Your task to perform on an android device: turn on the 24-hour format for clock Image 0: 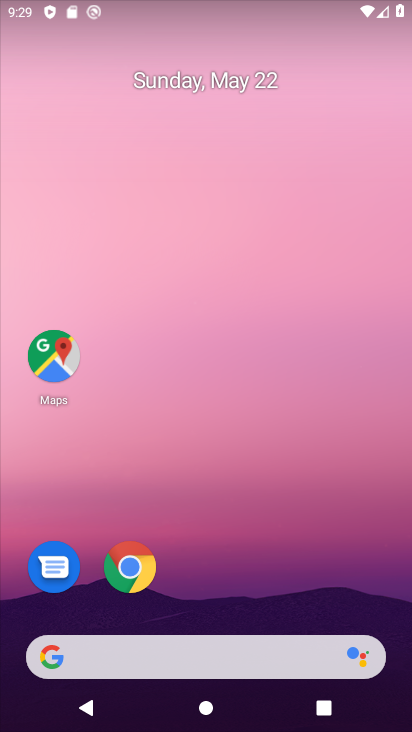
Step 0: drag from (184, 602) to (243, 277)
Your task to perform on an android device: turn on the 24-hour format for clock Image 1: 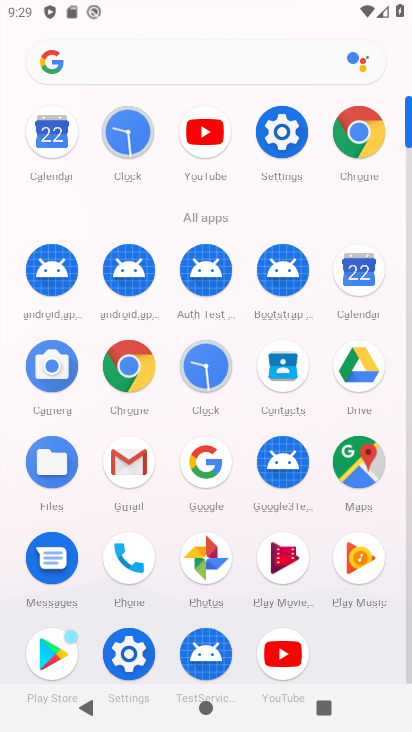
Step 1: click (218, 361)
Your task to perform on an android device: turn on the 24-hour format for clock Image 2: 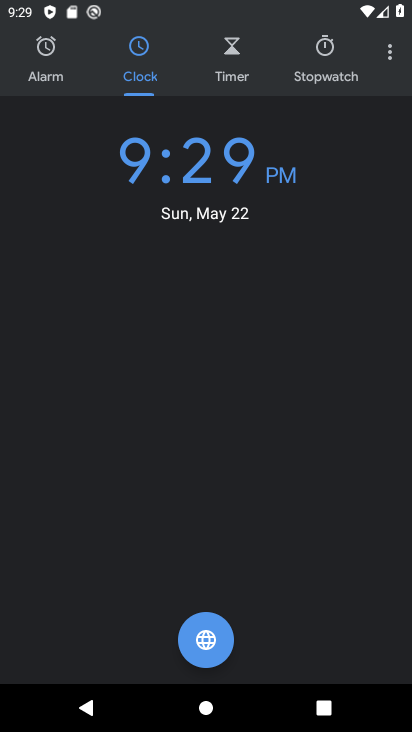
Step 2: click (394, 47)
Your task to perform on an android device: turn on the 24-hour format for clock Image 3: 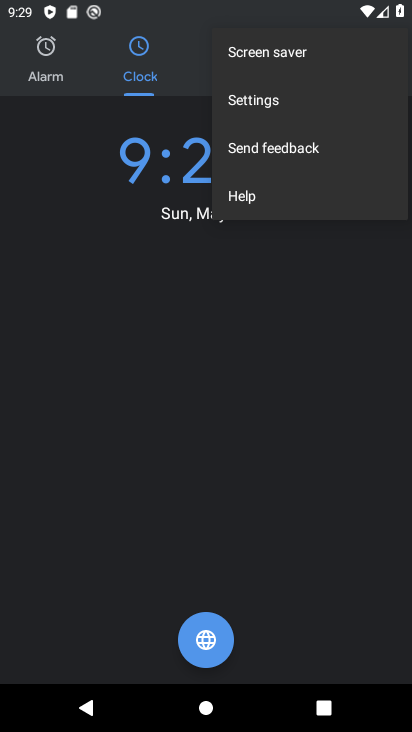
Step 3: click (251, 106)
Your task to perform on an android device: turn on the 24-hour format for clock Image 4: 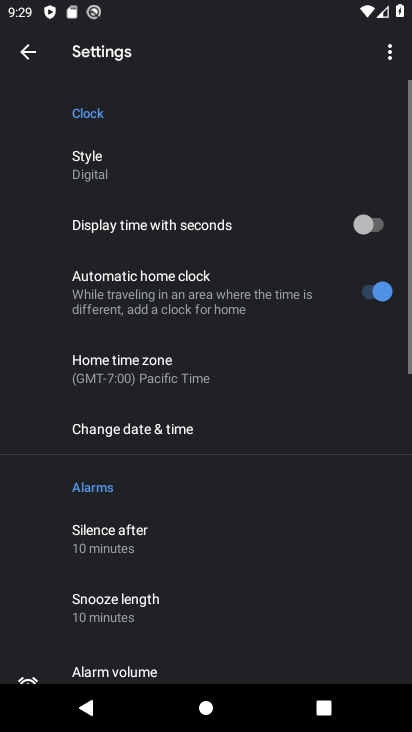
Step 4: click (156, 427)
Your task to perform on an android device: turn on the 24-hour format for clock Image 5: 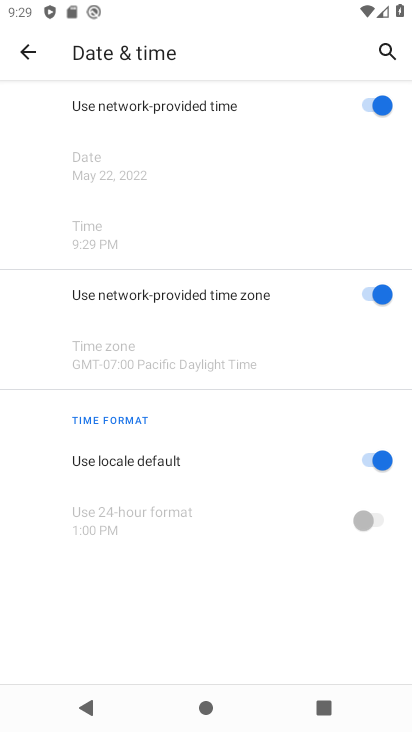
Step 5: click (364, 466)
Your task to perform on an android device: turn on the 24-hour format for clock Image 6: 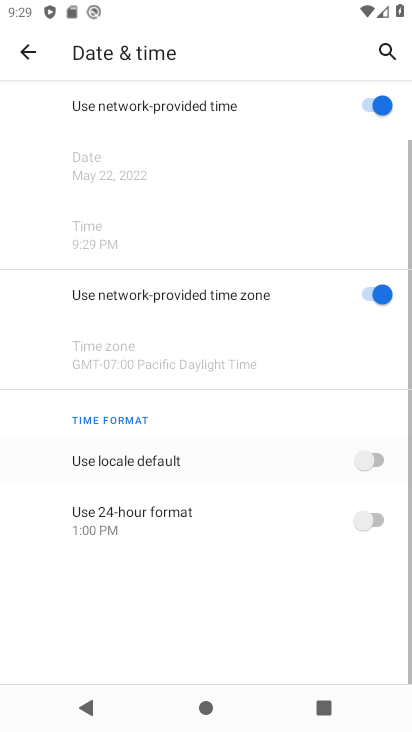
Step 6: click (378, 527)
Your task to perform on an android device: turn on the 24-hour format for clock Image 7: 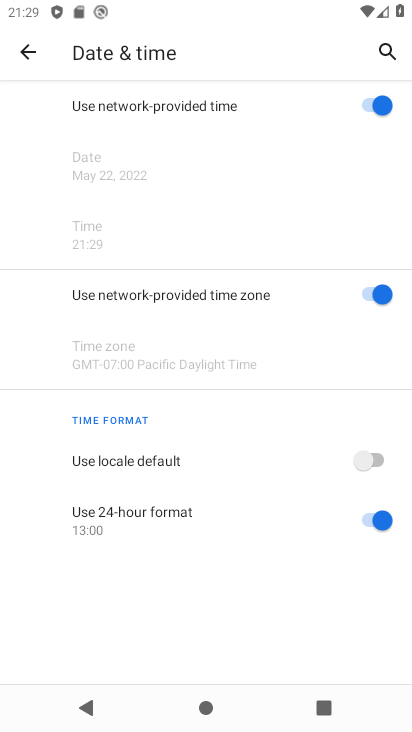
Step 7: task complete